Your task to perform on an android device: Is it going to rain today? Image 0: 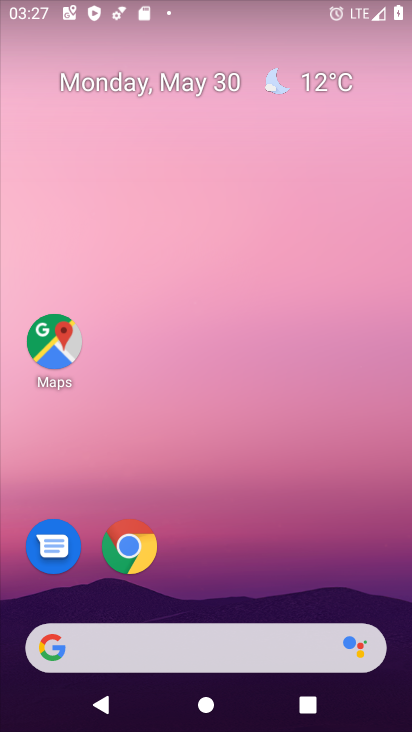
Step 0: click (304, 72)
Your task to perform on an android device: Is it going to rain today? Image 1: 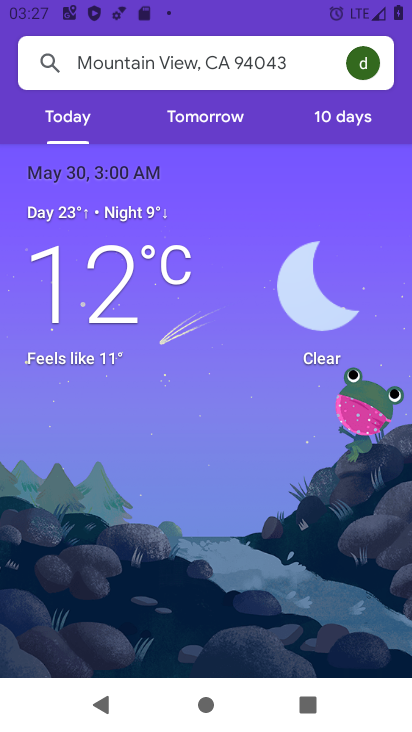
Step 1: drag from (221, 380) to (262, 79)
Your task to perform on an android device: Is it going to rain today? Image 2: 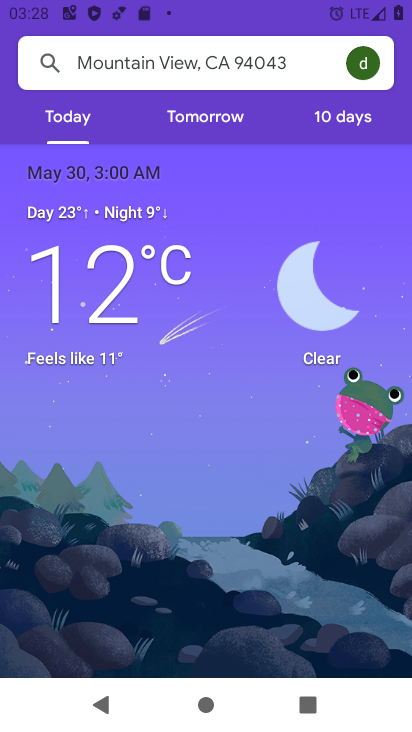
Step 2: drag from (232, 391) to (240, 123)
Your task to perform on an android device: Is it going to rain today? Image 3: 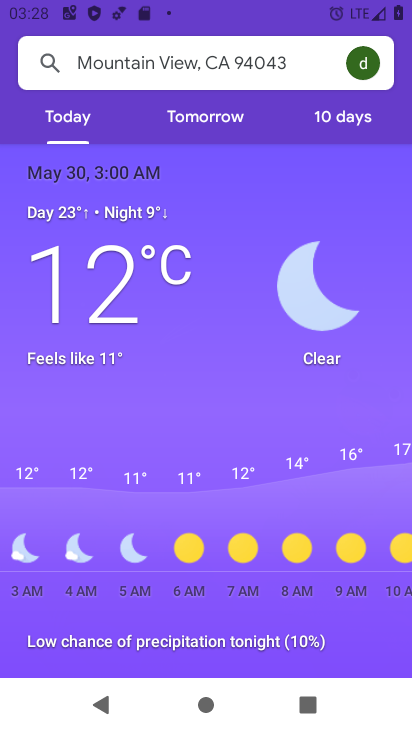
Step 3: drag from (337, 559) to (209, 561)
Your task to perform on an android device: Is it going to rain today? Image 4: 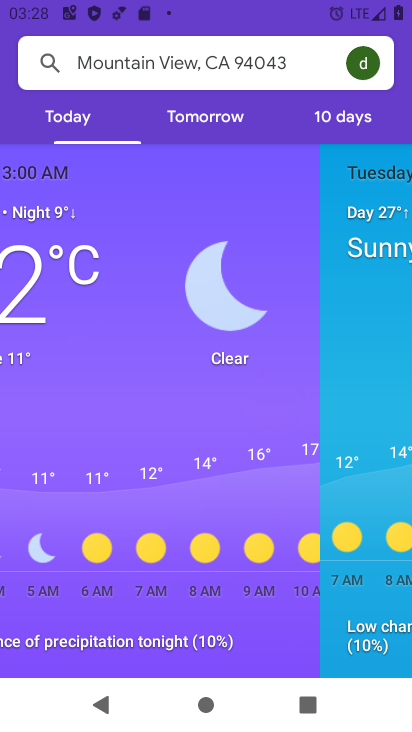
Step 4: click (159, 561)
Your task to perform on an android device: Is it going to rain today? Image 5: 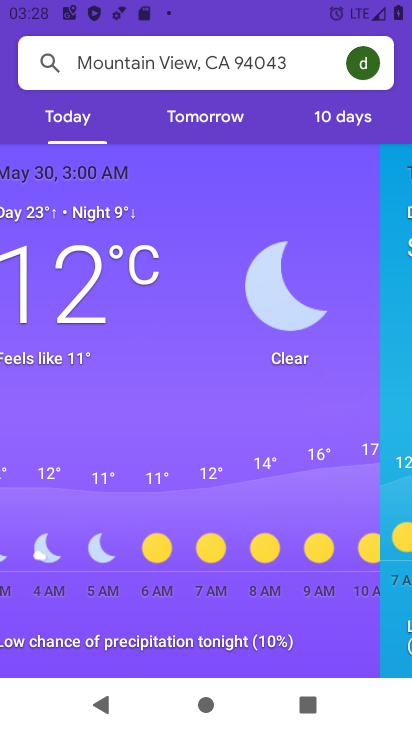
Step 5: task complete